Your task to perform on an android device: install app "Viber Messenger" Image 0: 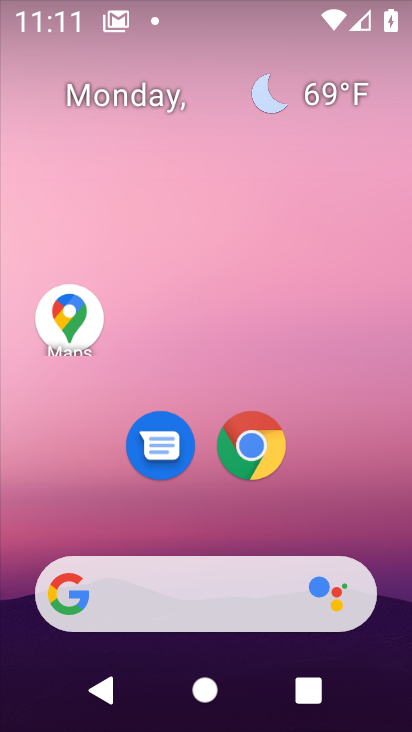
Step 0: drag from (232, 230) to (232, 166)
Your task to perform on an android device: install app "Viber Messenger" Image 1: 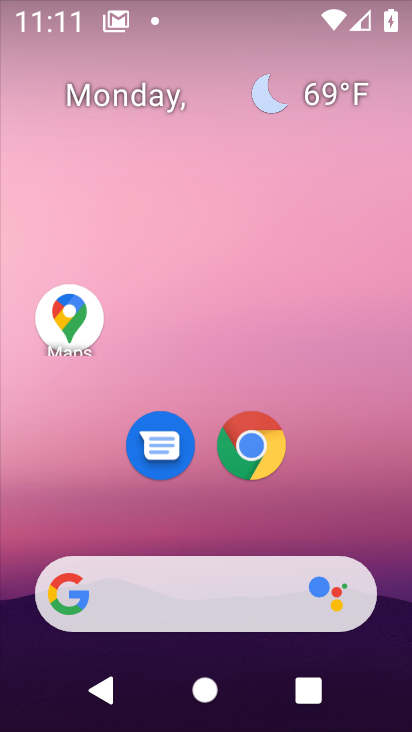
Step 1: drag from (307, 394) to (341, 27)
Your task to perform on an android device: install app "Viber Messenger" Image 2: 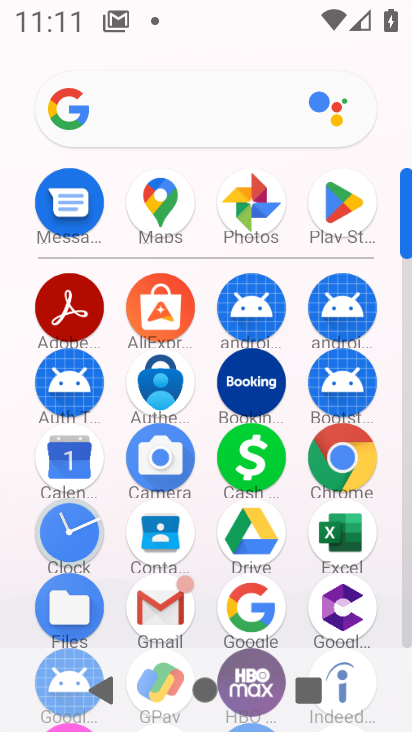
Step 2: click (339, 222)
Your task to perform on an android device: install app "Viber Messenger" Image 3: 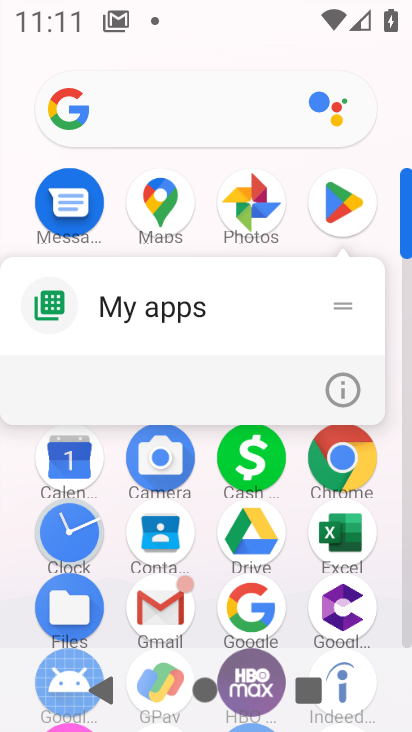
Step 3: click (339, 222)
Your task to perform on an android device: install app "Viber Messenger" Image 4: 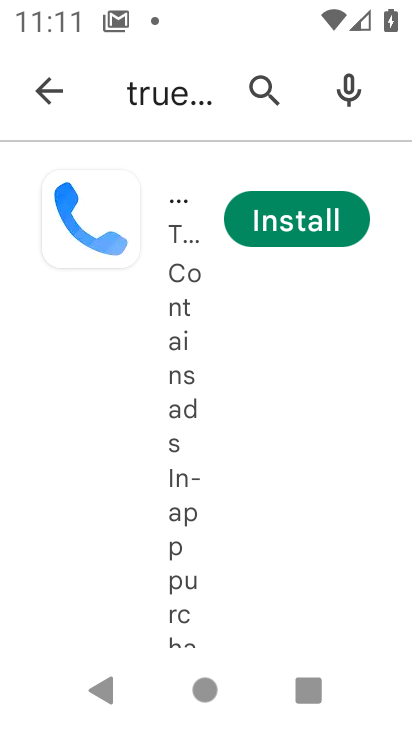
Step 4: click (58, 95)
Your task to perform on an android device: install app "Viber Messenger" Image 5: 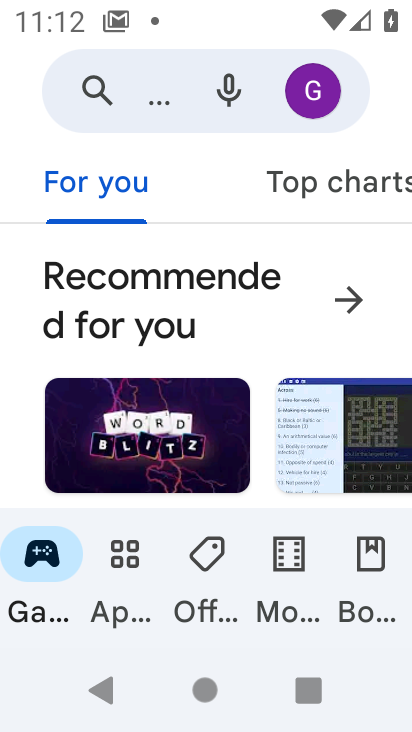
Step 5: click (117, 95)
Your task to perform on an android device: install app "Viber Messenger" Image 6: 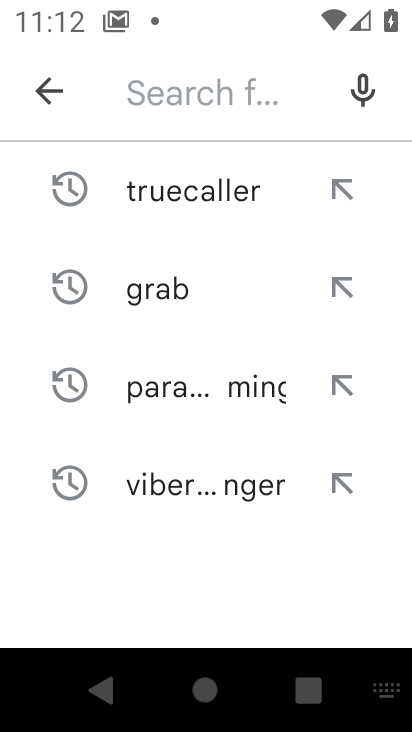
Step 6: type "Viber Messenger"
Your task to perform on an android device: install app "Viber Messenger" Image 7: 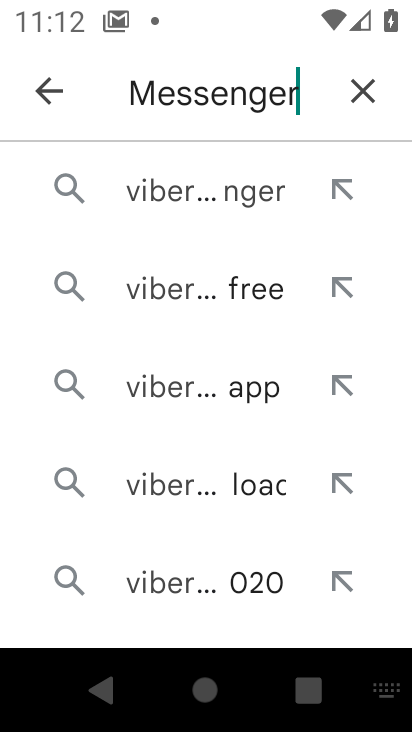
Step 7: type ""
Your task to perform on an android device: install app "Viber Messenger" Image 8: 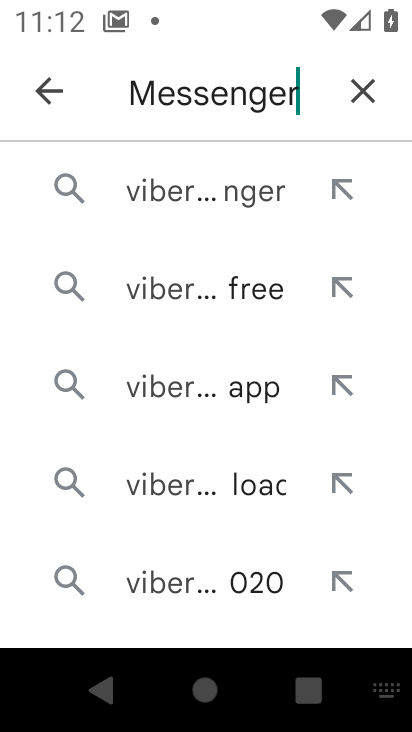
Step 8: click (238, 190)
Your task to perform on an android device: install app "Viber Messenger" Image 9: 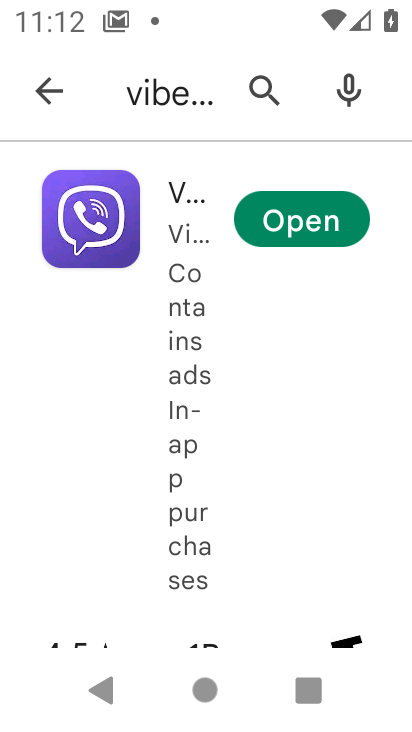
Step 9: click (53, 94)
Your task to perform on an android device: install app "Viber Messenger" Image 10: 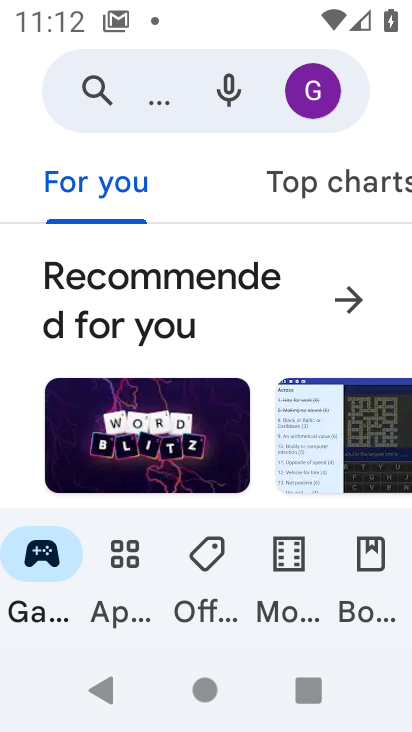
Step 10: task complete